Your task to perform on an android device: toggle improve location accuracy Image 0: 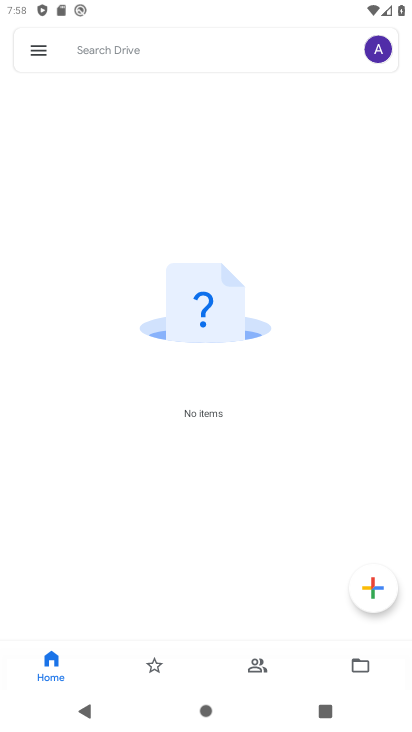
Step 0: press home button
Your task to perform on an android device: toggle improve location accuracy Image 1: 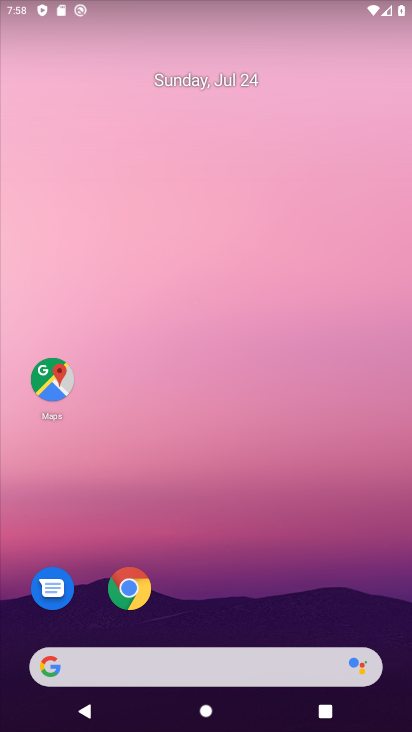
Step 1: drag from (229, 609) to (288, 20)
Your task to perform on an android device: toggle improve location accuracy Image 2: 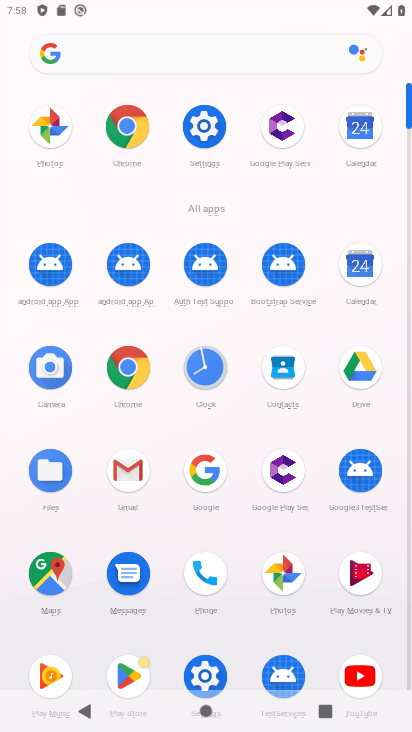
Step 2: click (206, 120)
Your task to perform on an android device: toggle improve location accuracy Image 3: 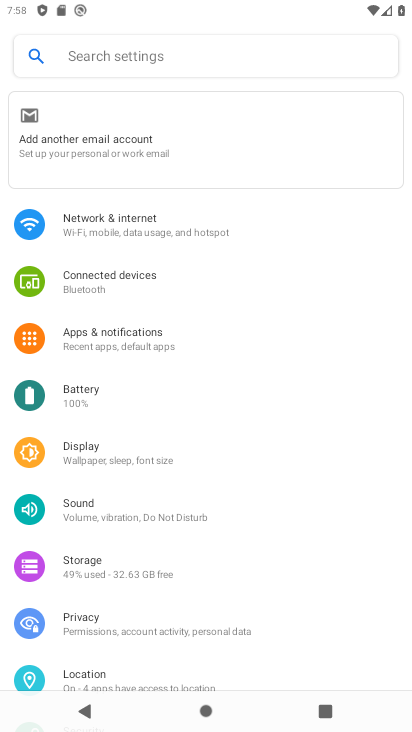
Step 3: click (108, 672)
Your task to perform on an android device: toggle improve location accuracy Image 4: 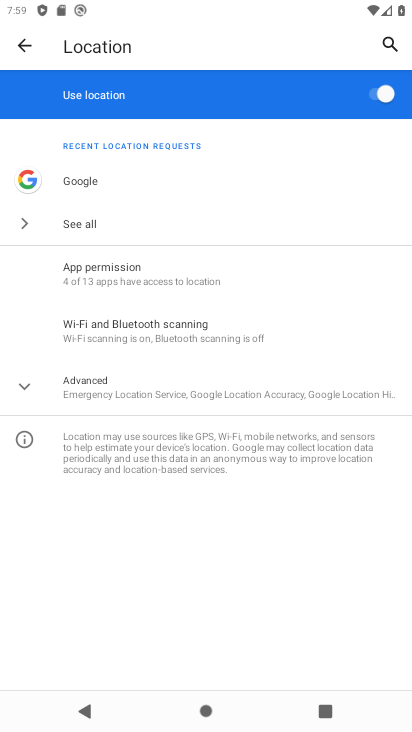
Step 4: click (141, 388)
Your task to perform on an android device: toggle improve location accuracy Image 5: 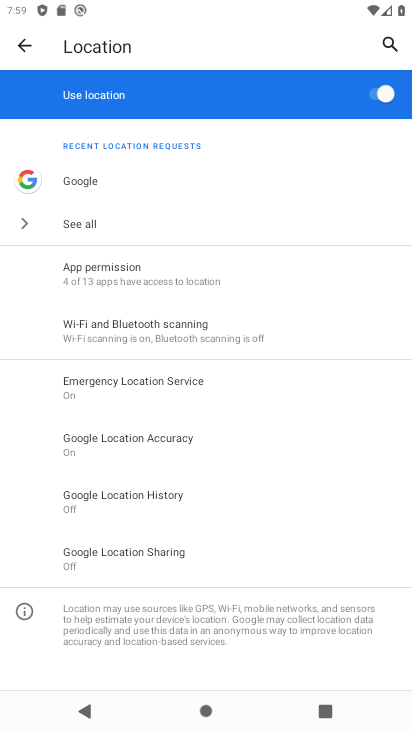
Step 5: click (145, 449)
Your task to perform on an android device: toggle improve location accuracy Image 6: 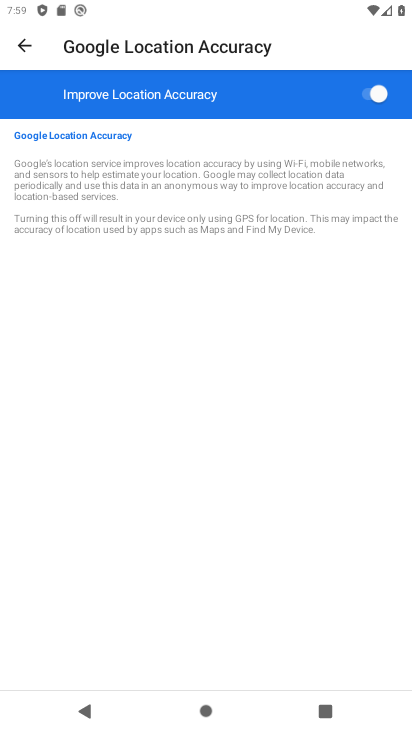
Step 6: click (368, 100)
Your task to perform on an android device: toggle improve location accuracy Image 7: 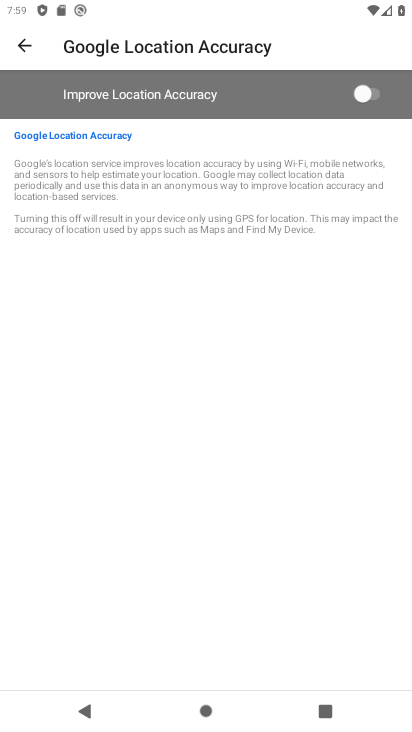
Step 7: task complete